Your task to perform on an android device: turn off smart reply in the gmail app Image 0: 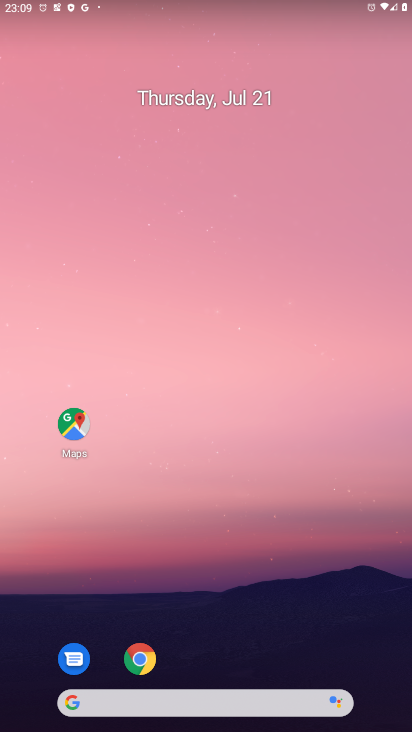
Step 0: drag from (221, 708) to (255, 9)
Your task to perform on an android device: turn off smart reply in the gmail app Image 1: 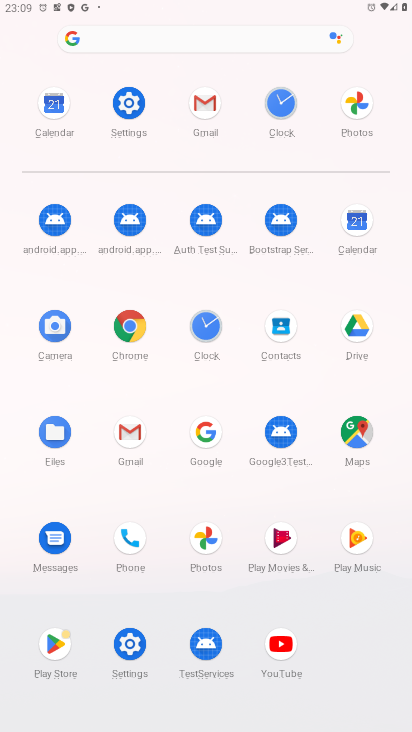
Step 1: click (206, 101)
Your task to perform on an android device: turn off smart reply in the gmail app Image 2: 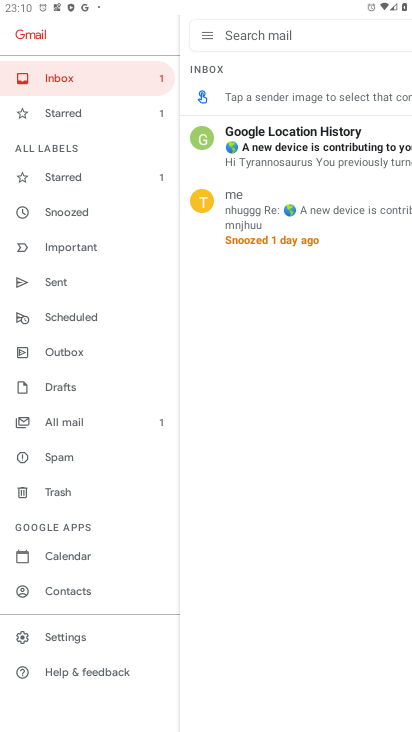
Step 2: drag from (75, 494) to (108, 300)
Your task to perform on an android device: turn off smart reply in the gmail app Image 3: 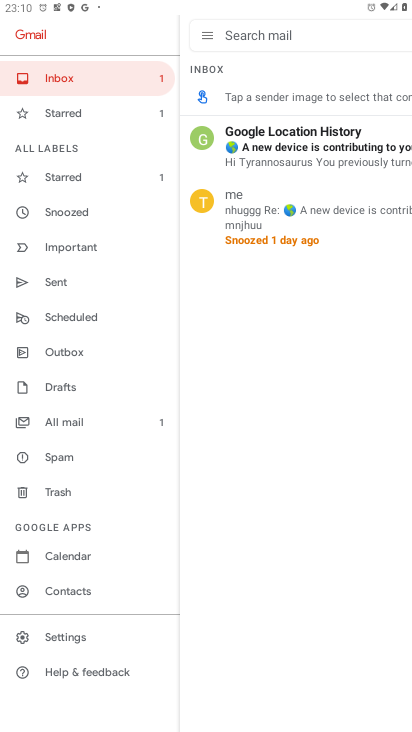
Step 3: click (65, 631)
Your task to perform on an android device: turn off smart reply in the gmail app Image 4: 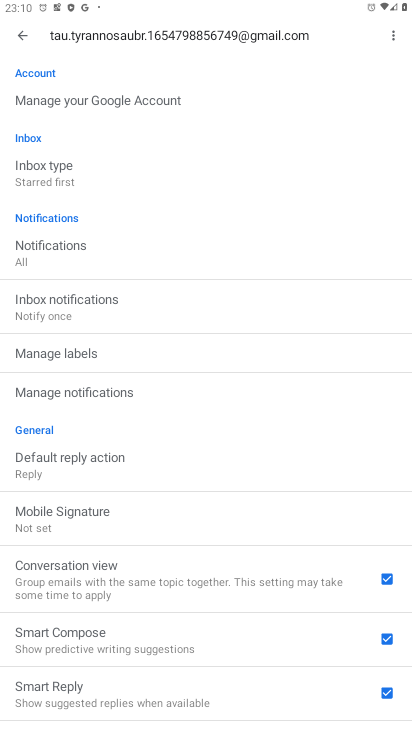
Step 4: drag from (110, 620) to (114, 529)
Your task to perform on an android device: turn off smart reply in the gmail app Image 5: 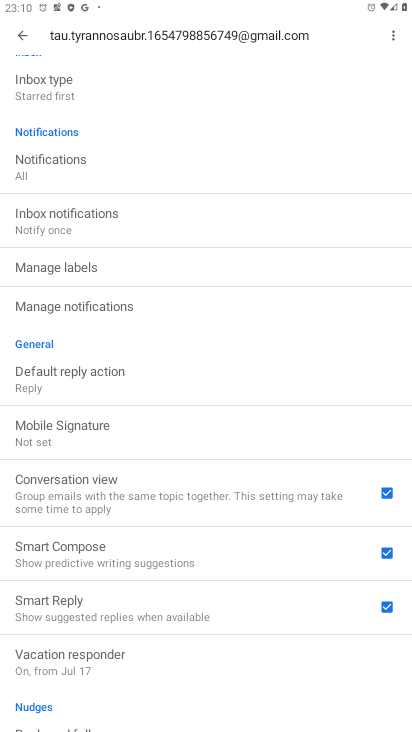
Step 5: click (388, 598)
Your task to perform on an android device: turn off smart reply in the gmail app Image 6: 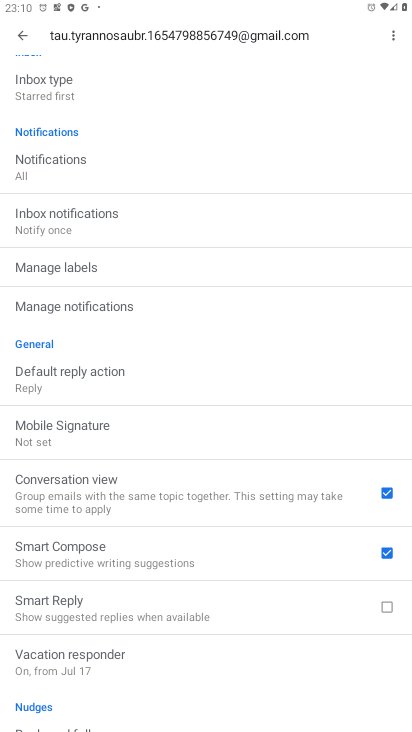
Step 6: task complete